Your task to perform on an android device: turn on the 24-hour format for clock Image 0: 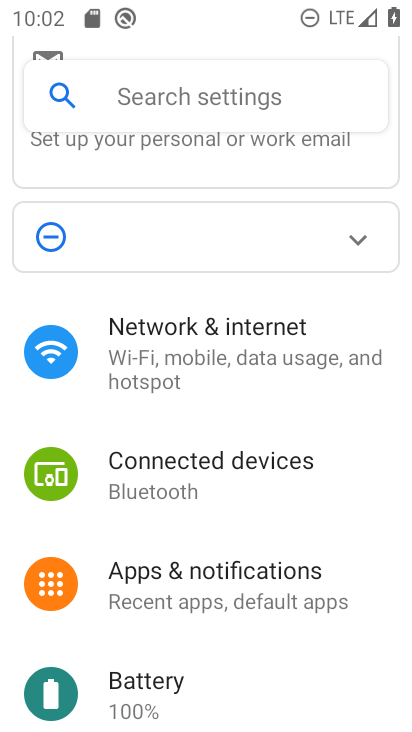
Step 0: press home button
Your task to perform on an android device: turn on the 24-hour format for clock Image 1: 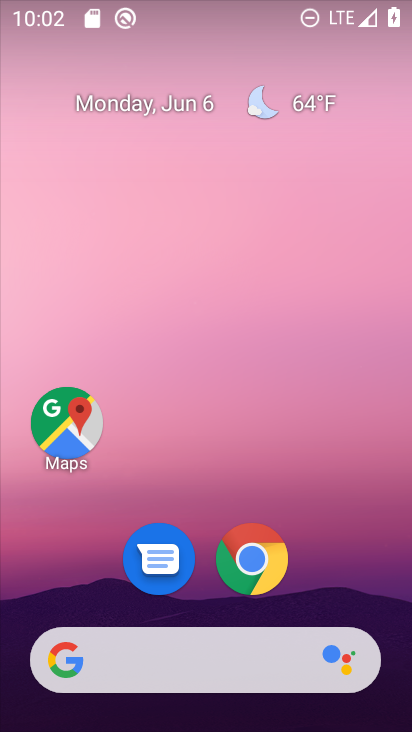
Step 1: drag from (215, 727) to (210, 136)
Your task to perform on an android device: turn on the 24-hour format for clock Image 2: 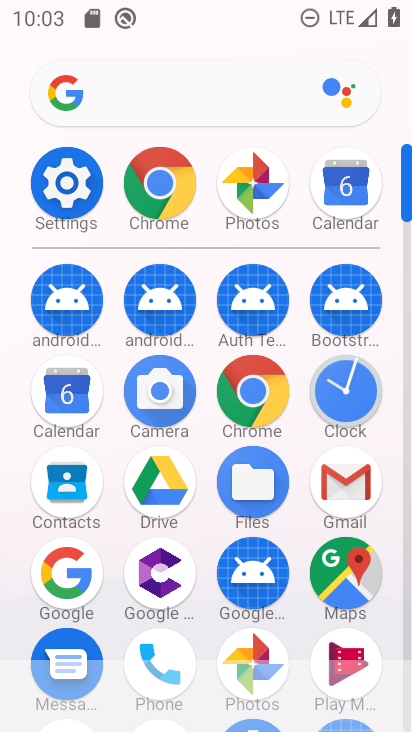
Step 2: click (346, 382)
Your task to perform on an android device: turn on the 24-hour format for clock Image 3: 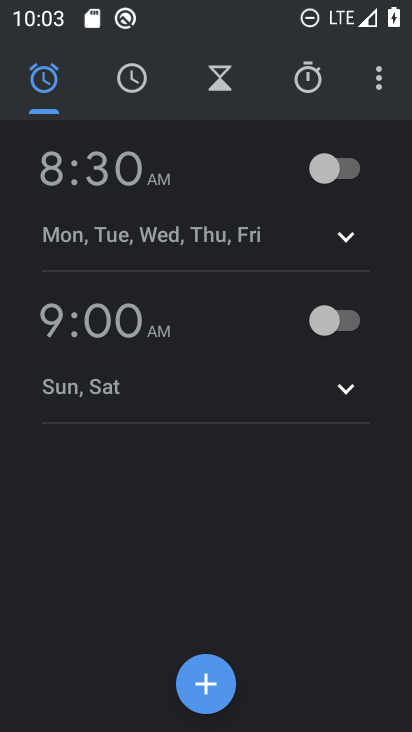
Step 3: click (376, 89)
Your task to perform on an android device: turn on the 24-hour format for clock Image 4: 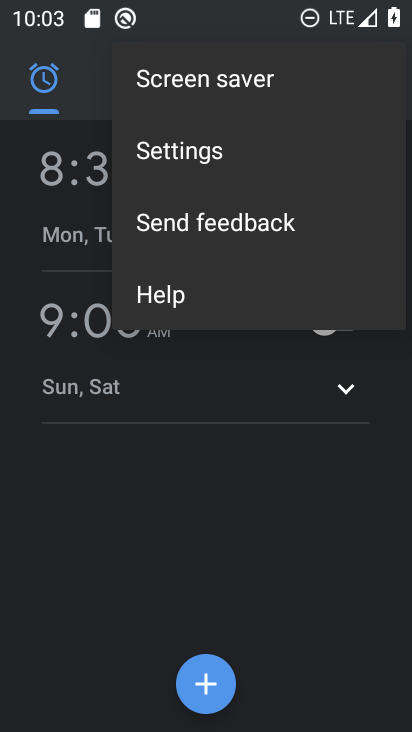
Step 4: click (184, 150)
Your task to perform on an android device: turn on the 24-hour format for clock Image 5: 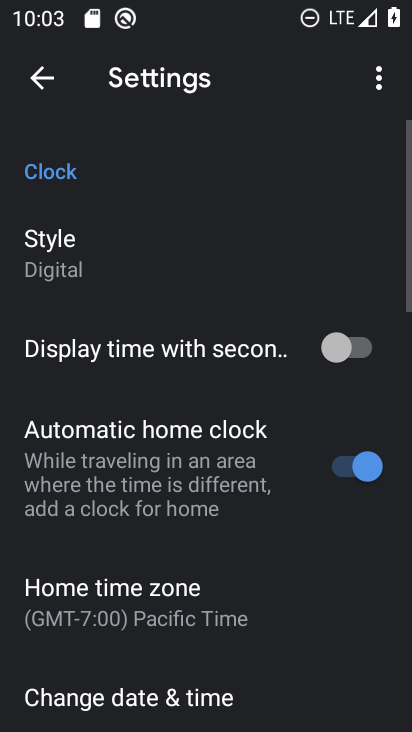
Step 5: drag from (193, 672) to (179, 310)
Your task to perform on an android device: turn on the 24-hour format for clock Image 6: 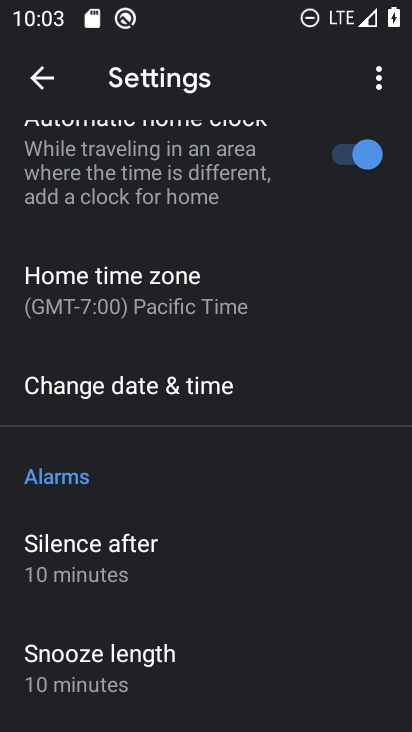
Step 6: click (140, 391)
Your task to perform on an android device: turn on the 24-hour format for clock Image 7: 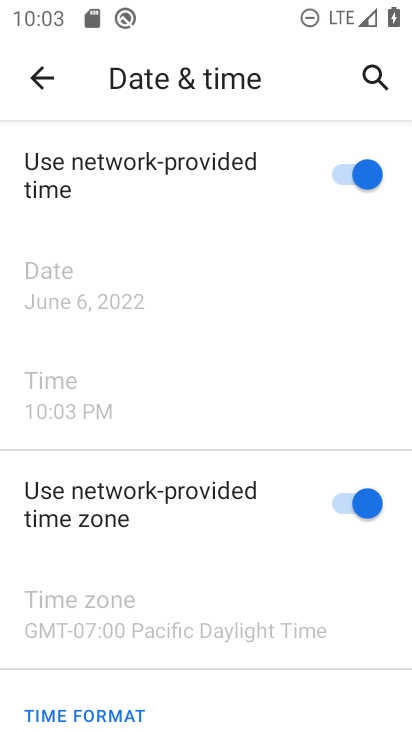
Step 7: drag from (151, 674) to (159, 329)
Your task to perform on an android device: turn on the 24-hour format for clock Image 8: 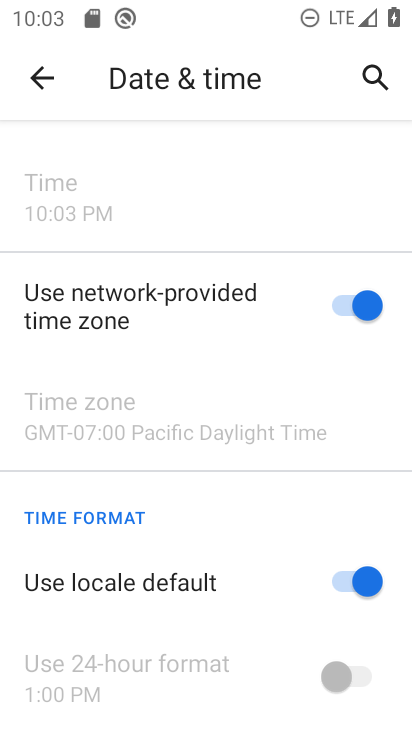
Step 8: click (351, 586)
Your task to perform on an android device: turn on the 24-hour format for clock Image 9: 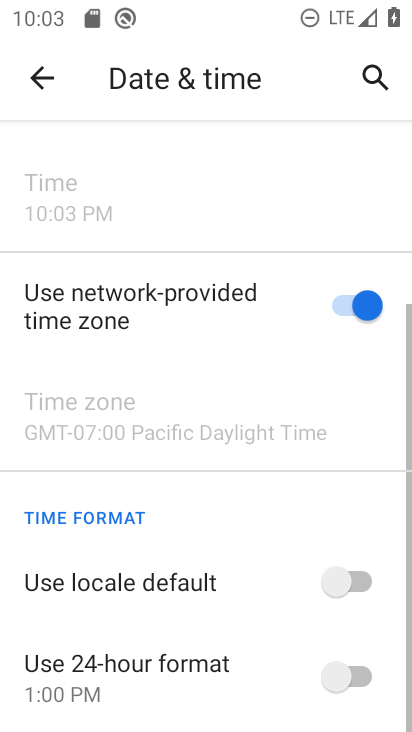
Step 9: click (358, 676)
Your task to perform on an android device: turn on the 24-hour format for clock Image 10: 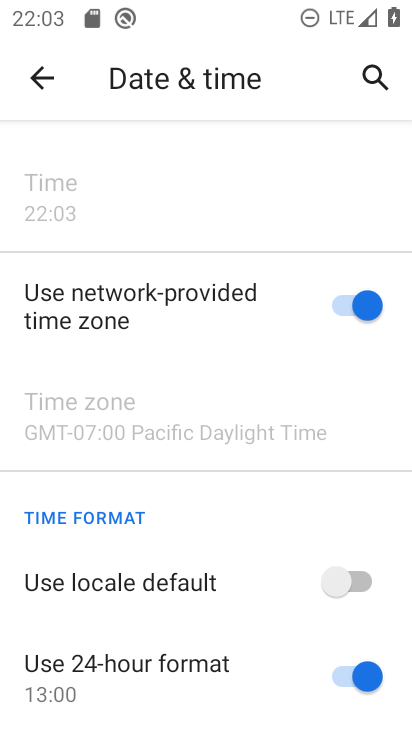
Step 10: task complete